Your task to perform on an android device: Open the map Image 0: 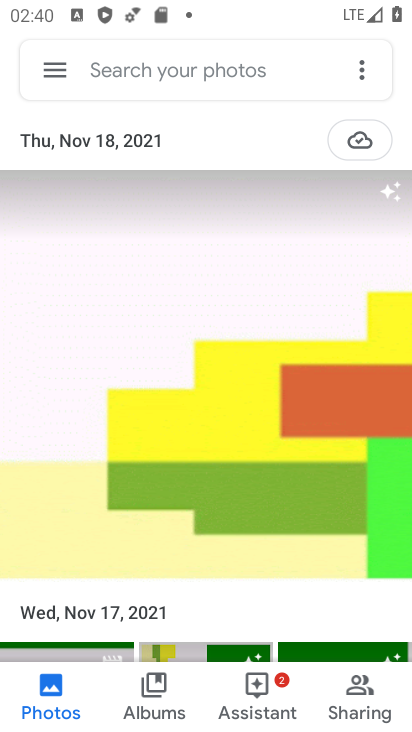
Step 0: press home button
Your task to perform on an android device: Open the map Image 1: 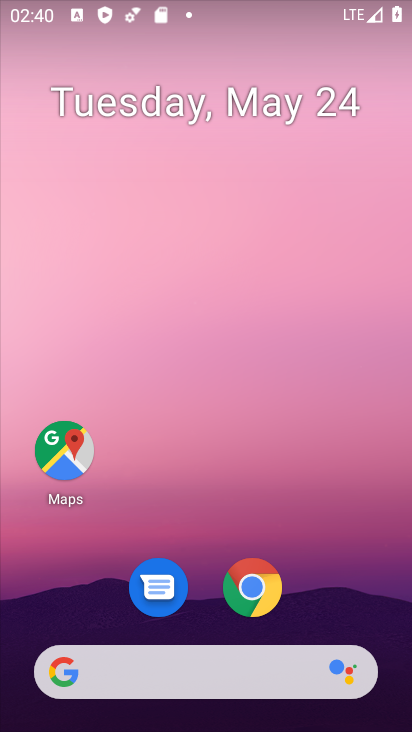
Step 1: click (57, 447)
Your task to perform on an android device: Open the map Image 2: 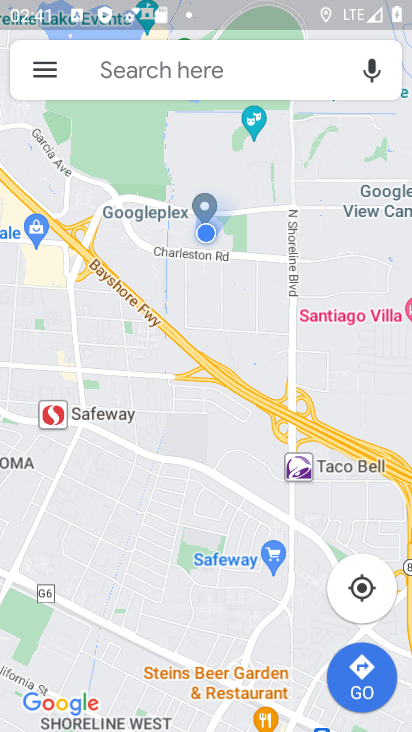
Step 2: task complete